Your task to perform on an android device: turn on priority inbox in the gmail app Image 0: 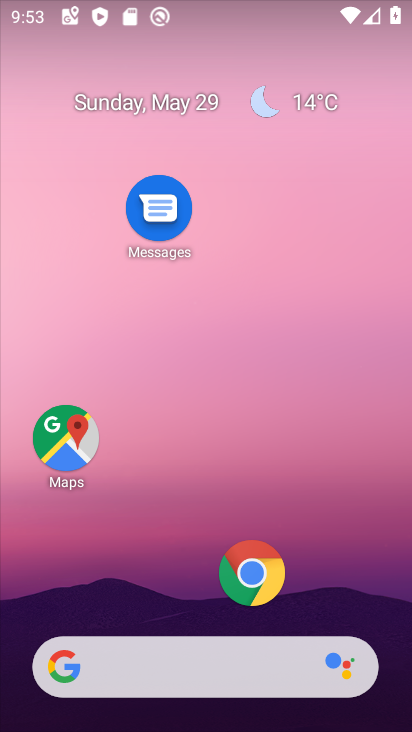
Step 0: drag from (190, 620) to (308, 59)
Your task to perform on an android device: turn on priority inbox in the gmail app Image 1: 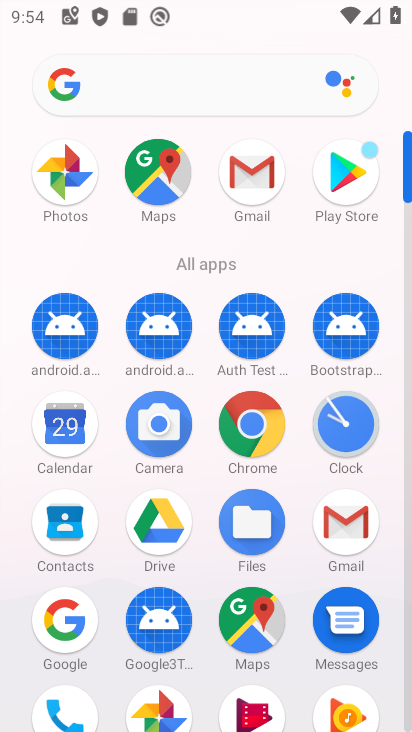
Step 1: click (254, 187)
Your task to perform on an android device: turn on priority inbox in the gmail app Image 2: 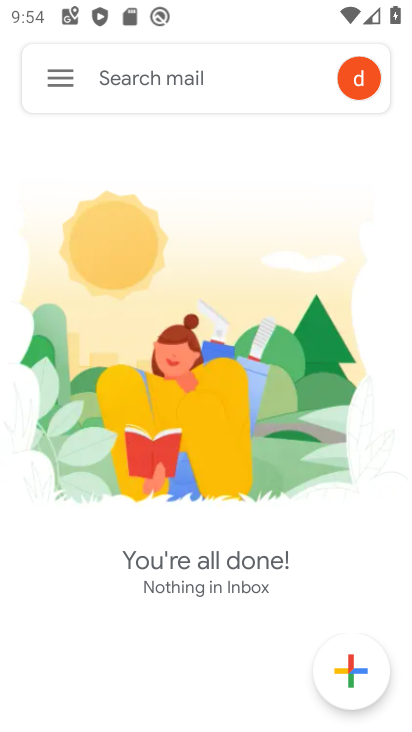
Step 2: click (55, 70)
Your task to perform on an android device: turn on priority inbox in the gmail app Image 3: 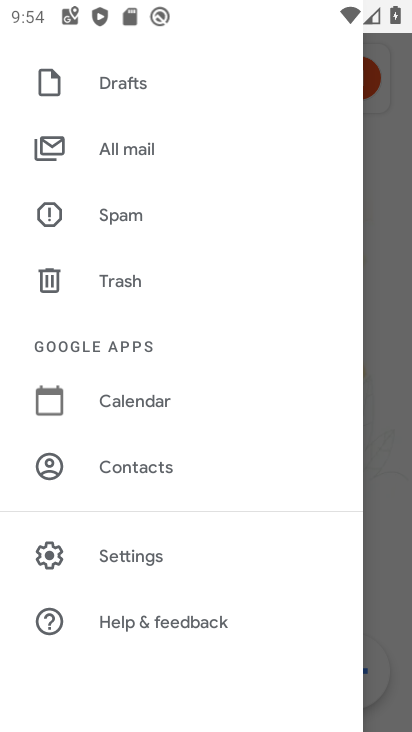
Step 3: click (107, 552)
Your task to perform on an android device: turn on priority inbox in the gmail app Image 4: 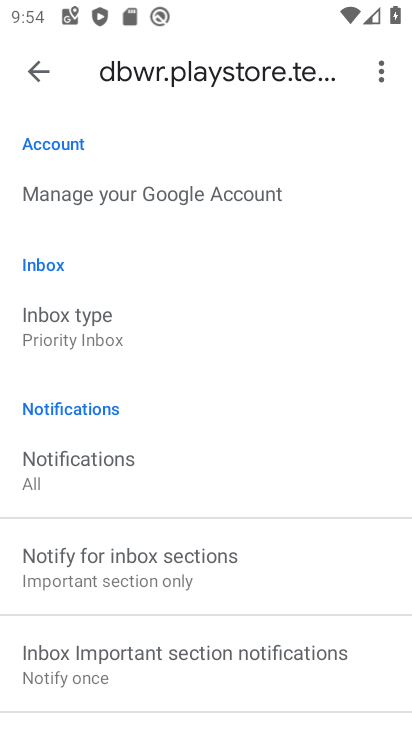
Step 4: task complete